Your task to perform on an android device: set default search engine in the chrome app Image 0: 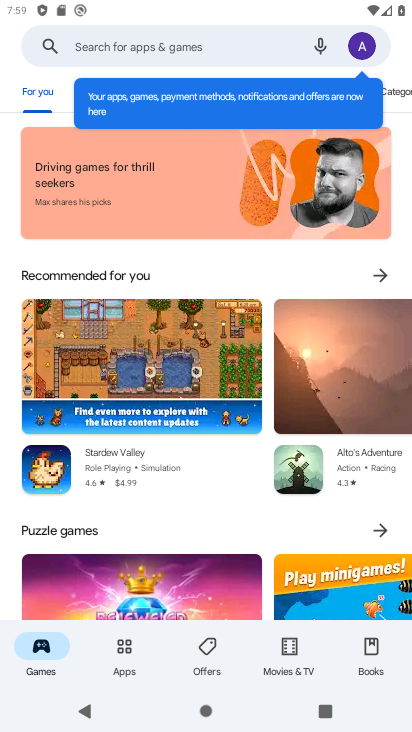
Step 0: press home button
Your task to perform on an android device: set default search engine in the chrome app Image 1: 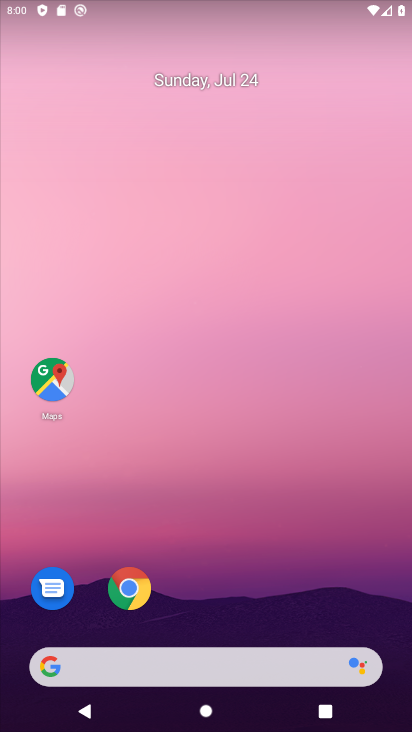
Step 1: click (125, 589)
Your task to perform on an android device: set default search engine in the chrome app Image 2: 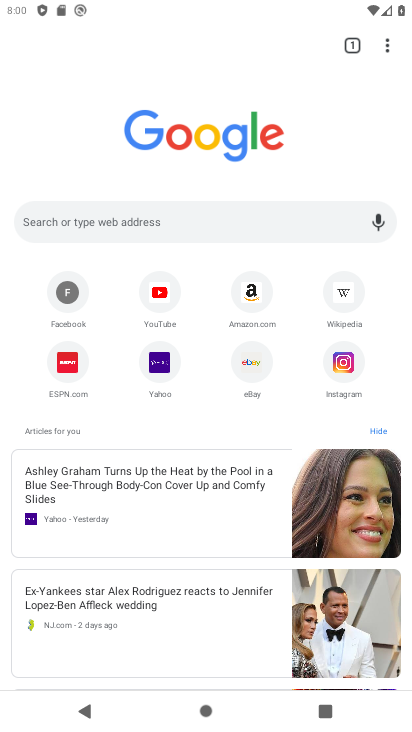
Step 2: click (386, 43)
Your task to perform on an android device: set default search engine in the chrome app Image 3: 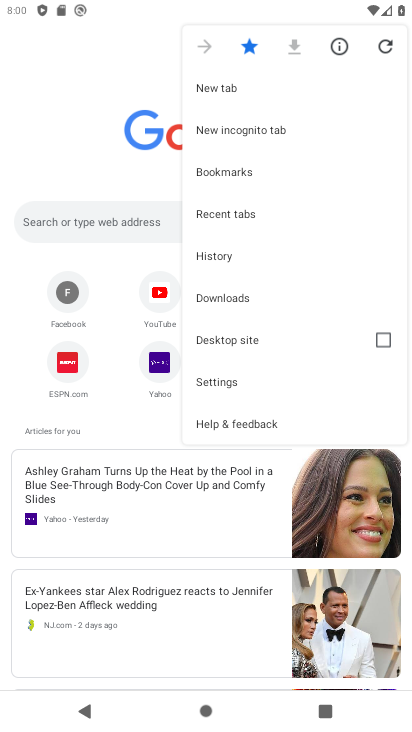
Step 3: click (250, 385)
Your task to perform on an android device: set default search engine in the chrome app Image 4: 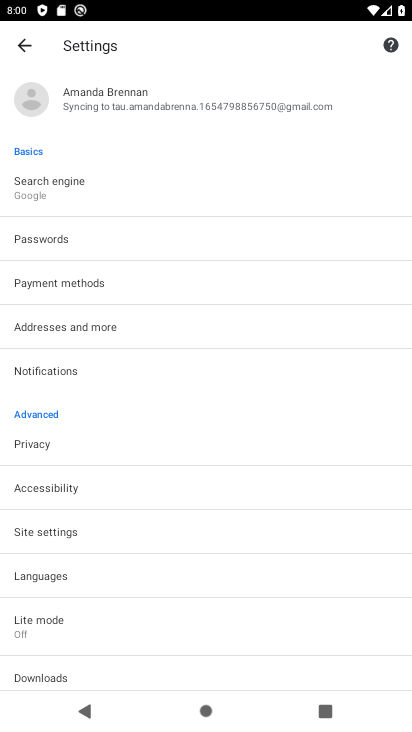
Step 4: click (66, 200)
Your task to perform on an android device: set default search engine in the chrome app Image 5: 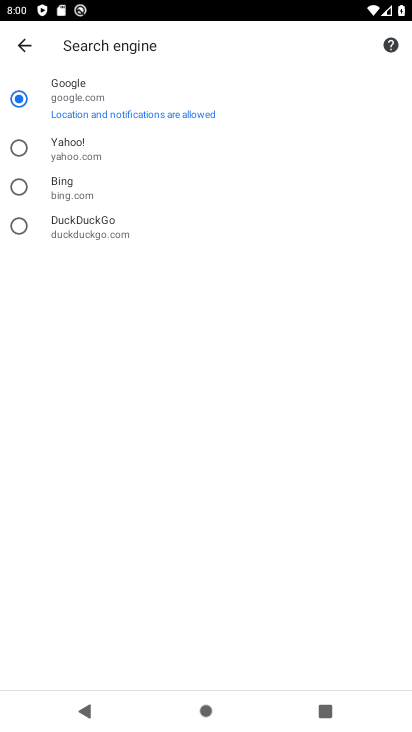
Step 5: click (89, 161)
Your task to perform on an android device: set default search engine in the chrome app Image 6: 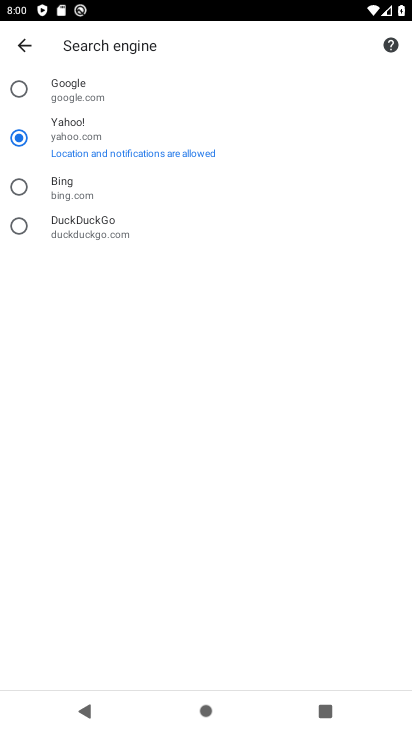
Step 6: task complete